Your task to perform on an android device: Search for pizza restaurants on Maps Image 0: 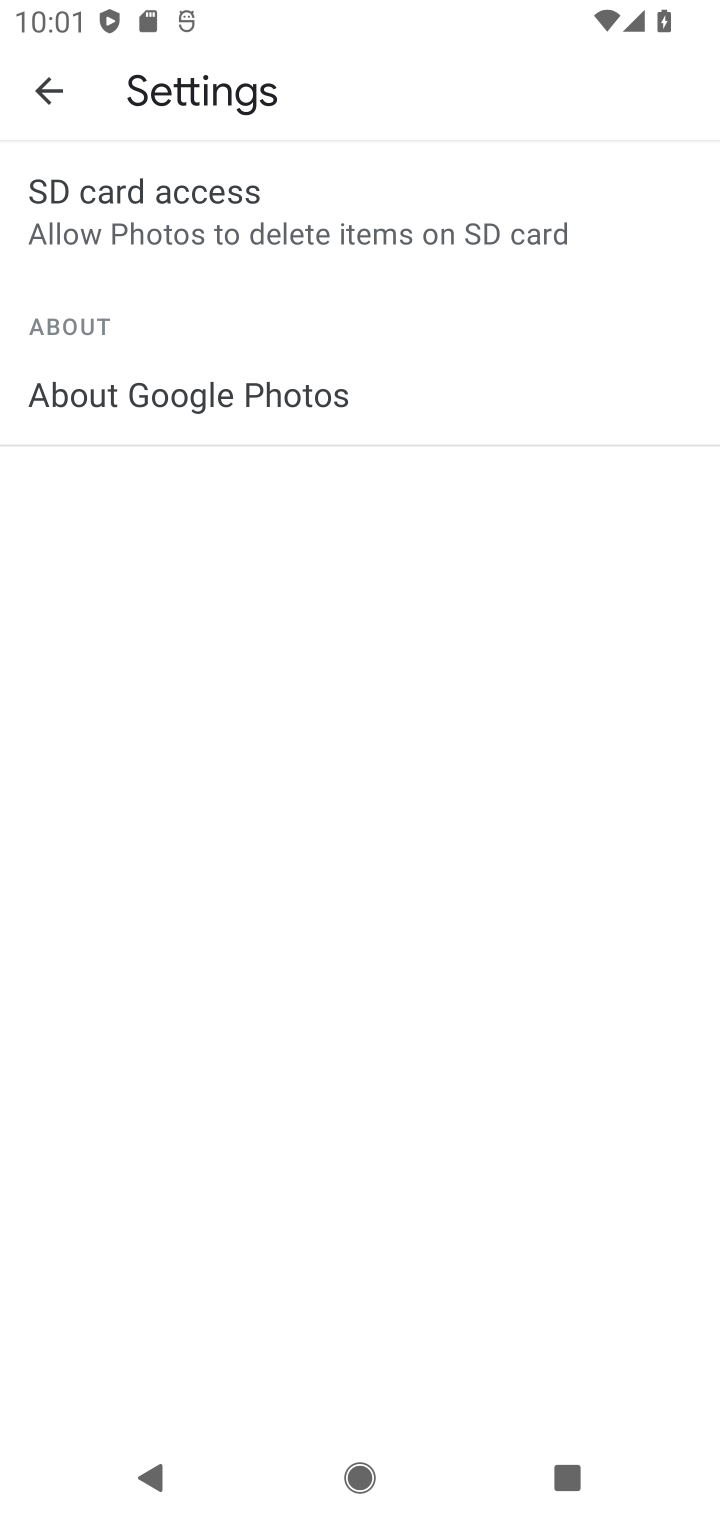
Step 0: press back button
Your task to perform on an android device: Search for pizza restaurants on Maps Image 1: 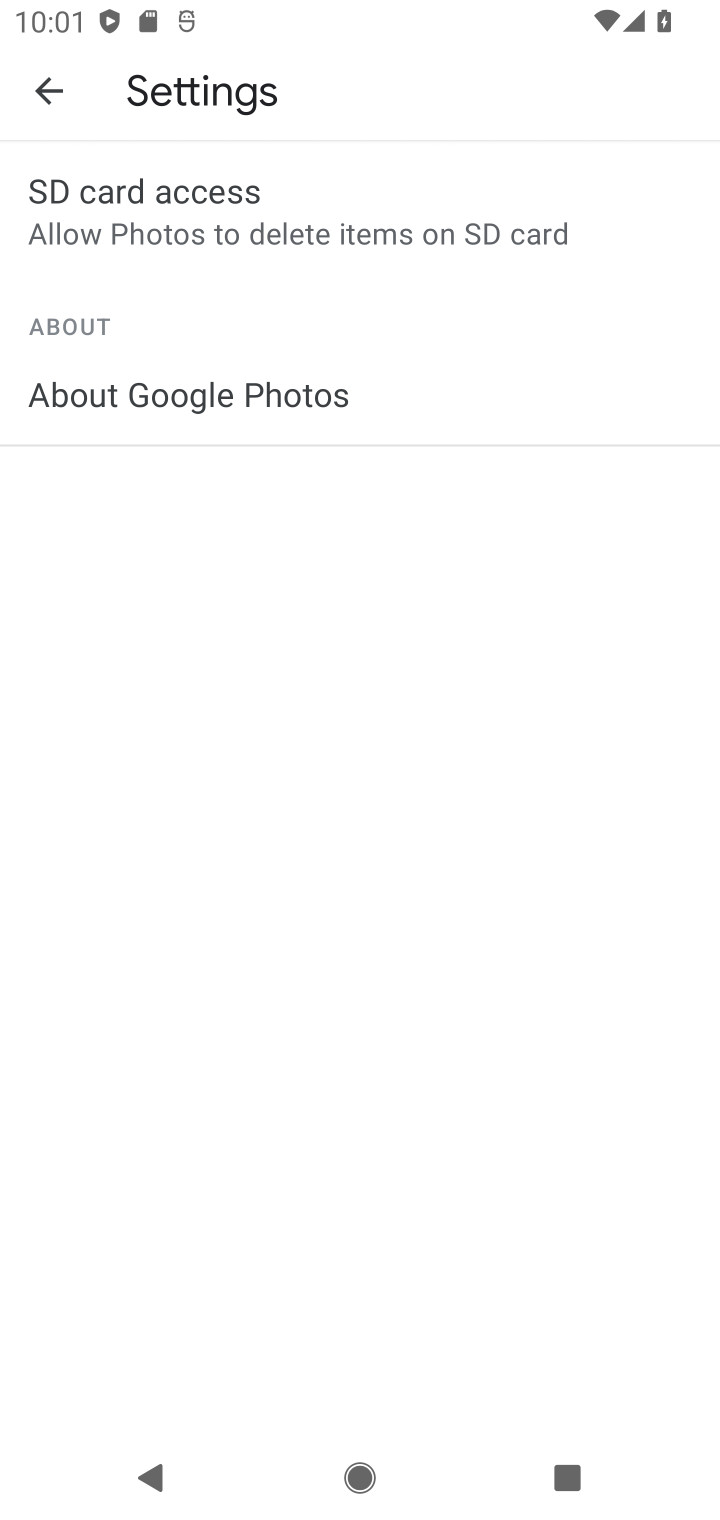
Step 1: press back button
Your task to perform on an android device: Search for pizza restaurants on Maps Image 2: 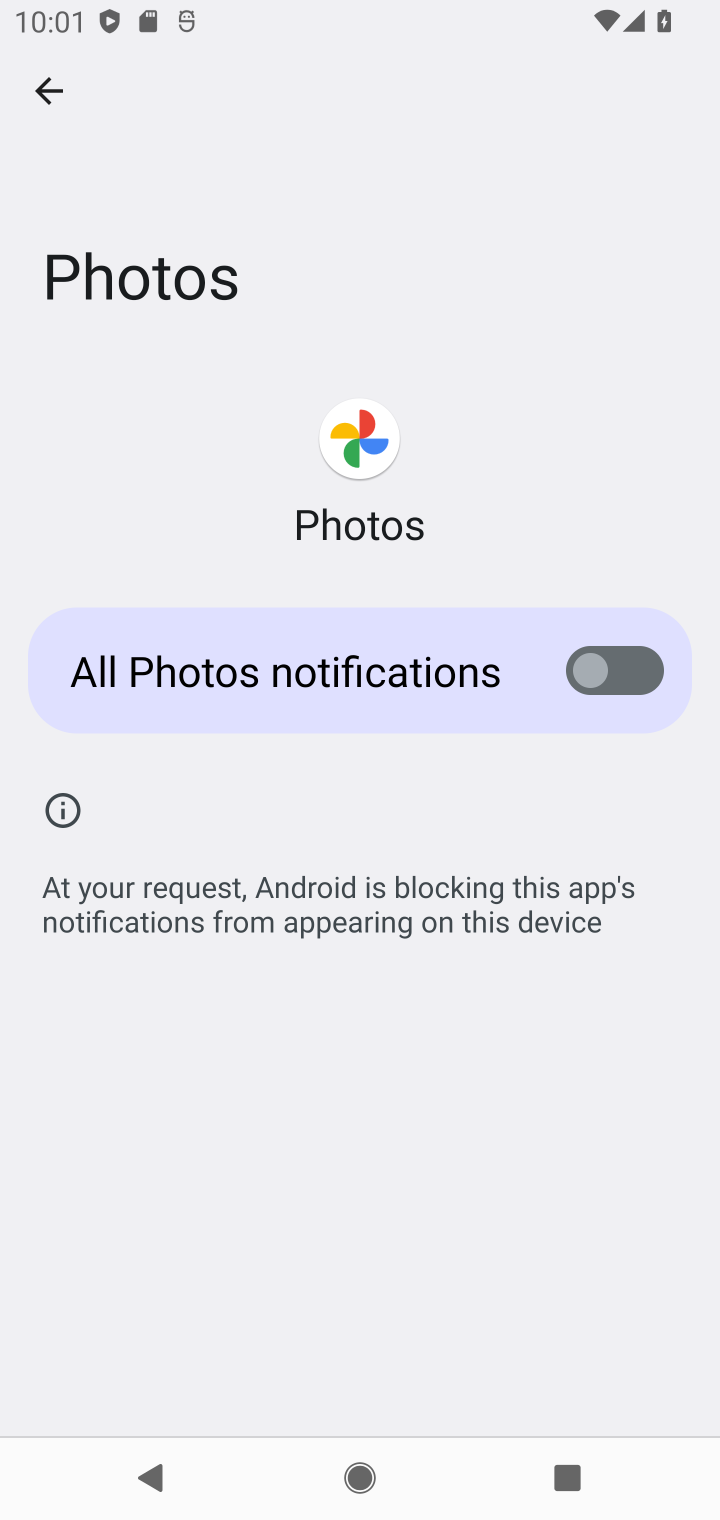
Step 2: press home button
Your task to perform on an android device: Search for pizza restaurants on Maps Image 3: 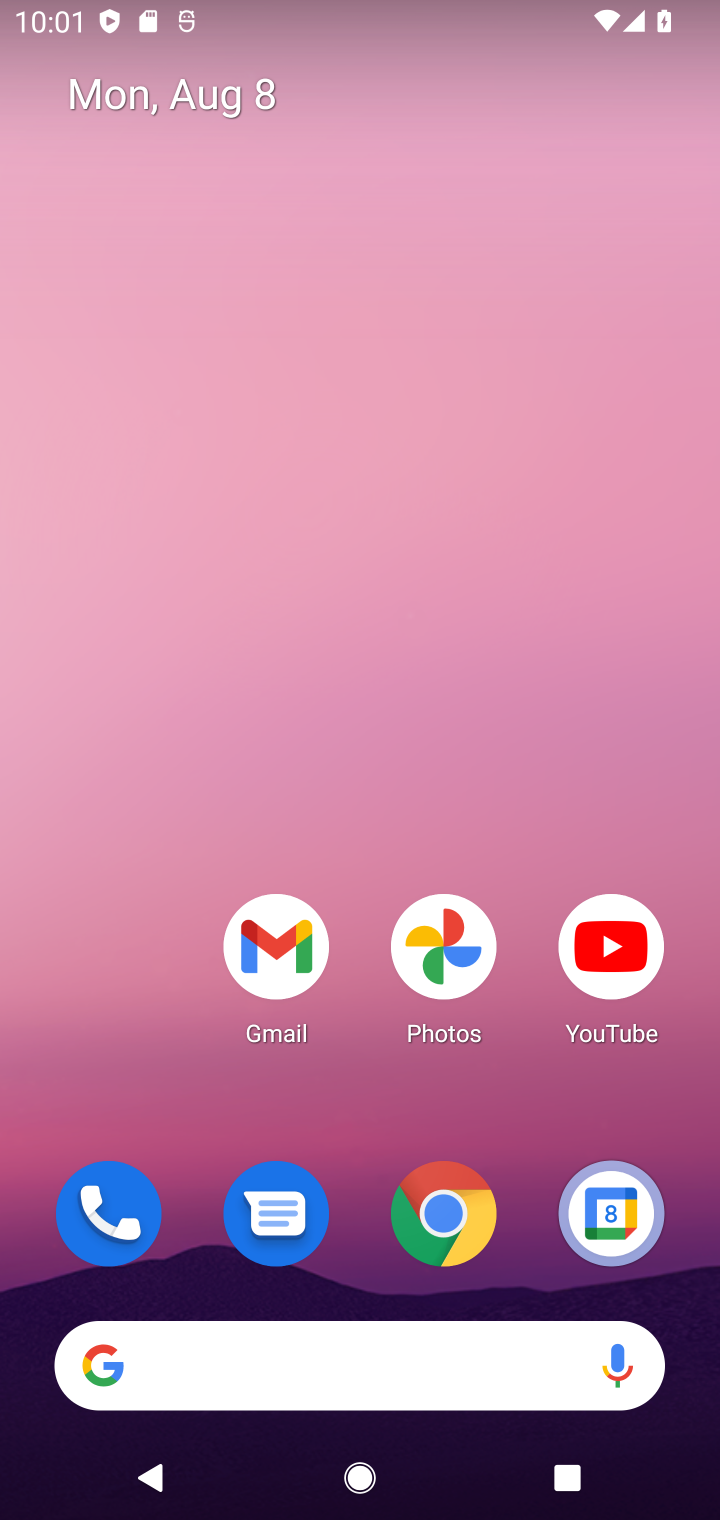
Step 3: drag from (349, 1117) to (292, 376)
Your task to perform on an android device: Search for pizza restaurants on Maps Image 4: 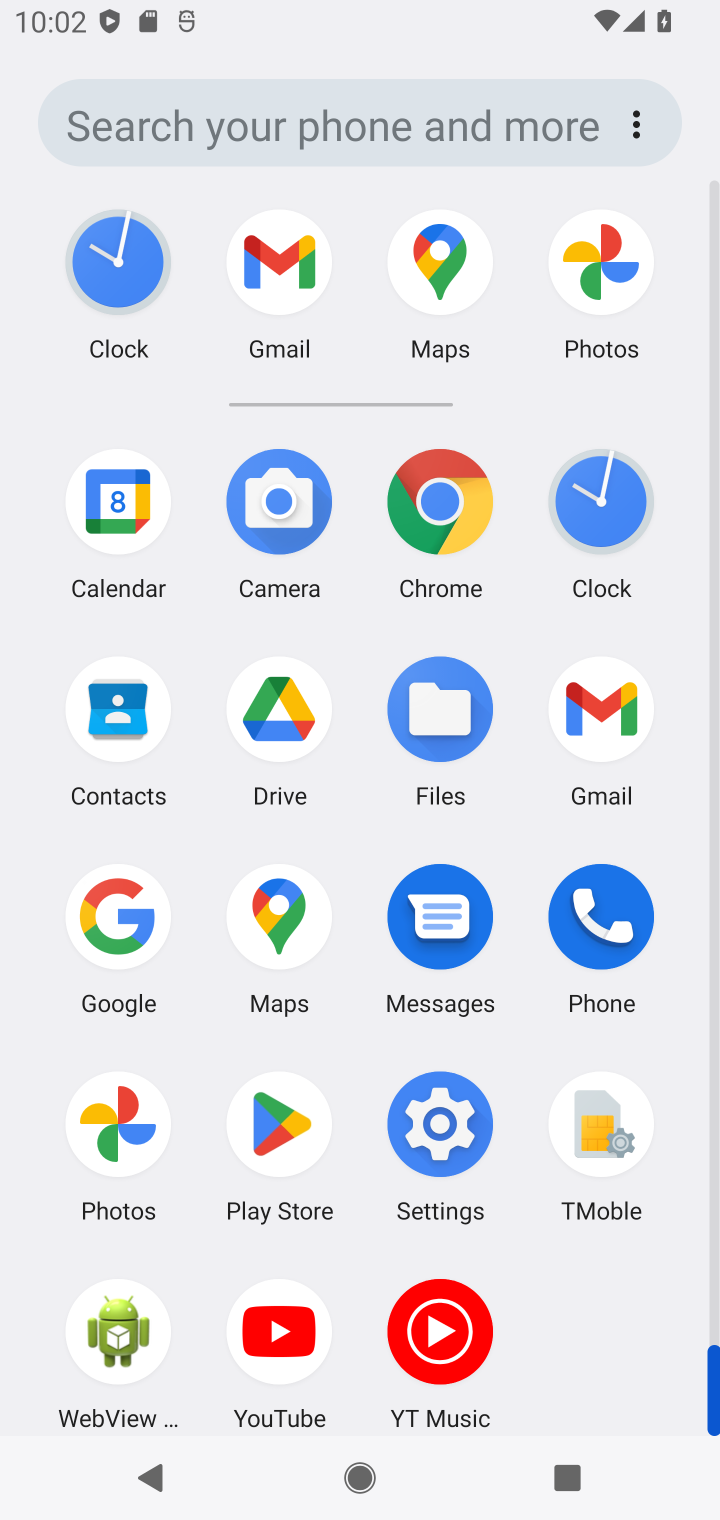
Step 4: click (251, 922)
Your task to perform on an android device: Search for pizza restaurants on Maps Image 5: 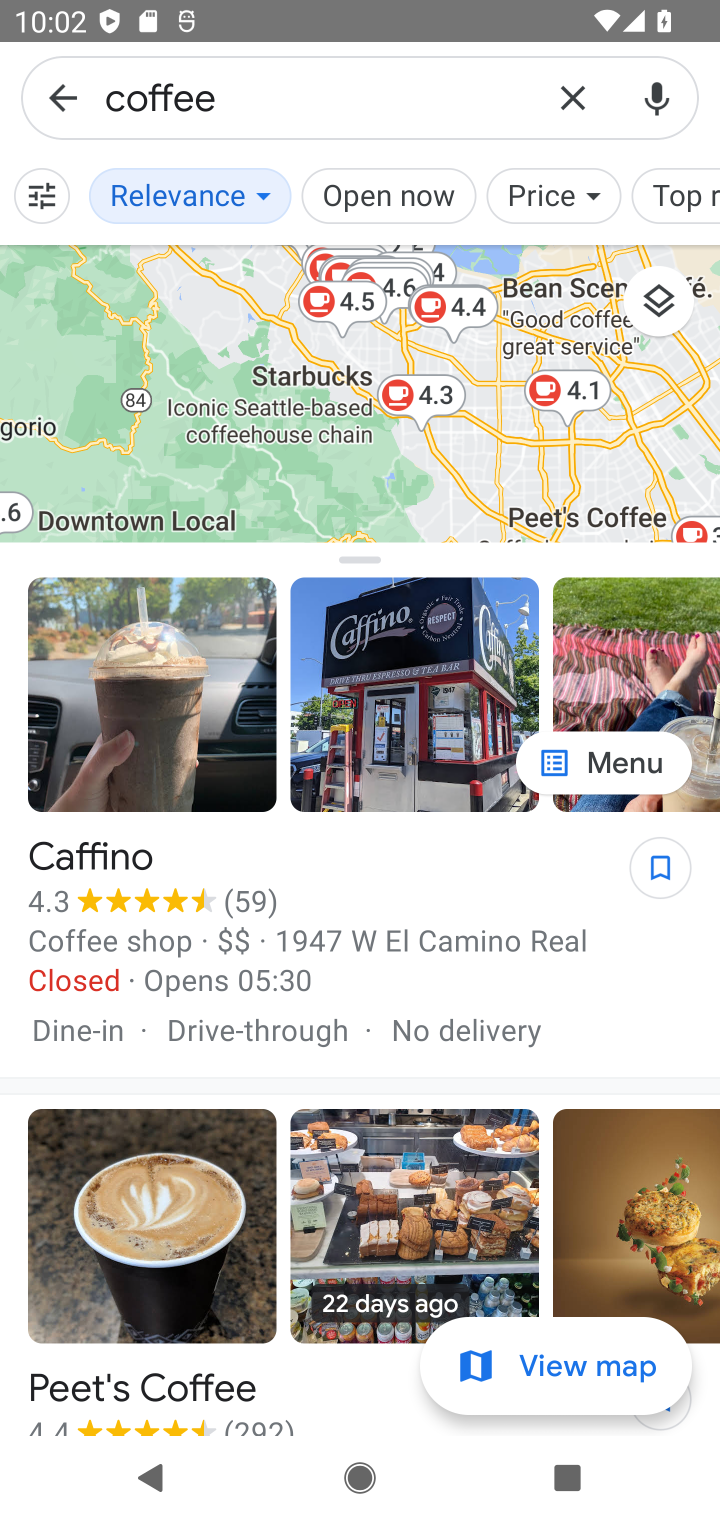
Step 5: click (571, 99)
Your task to perform on an android device: Search for pizza restaurants on Maps Image 6: 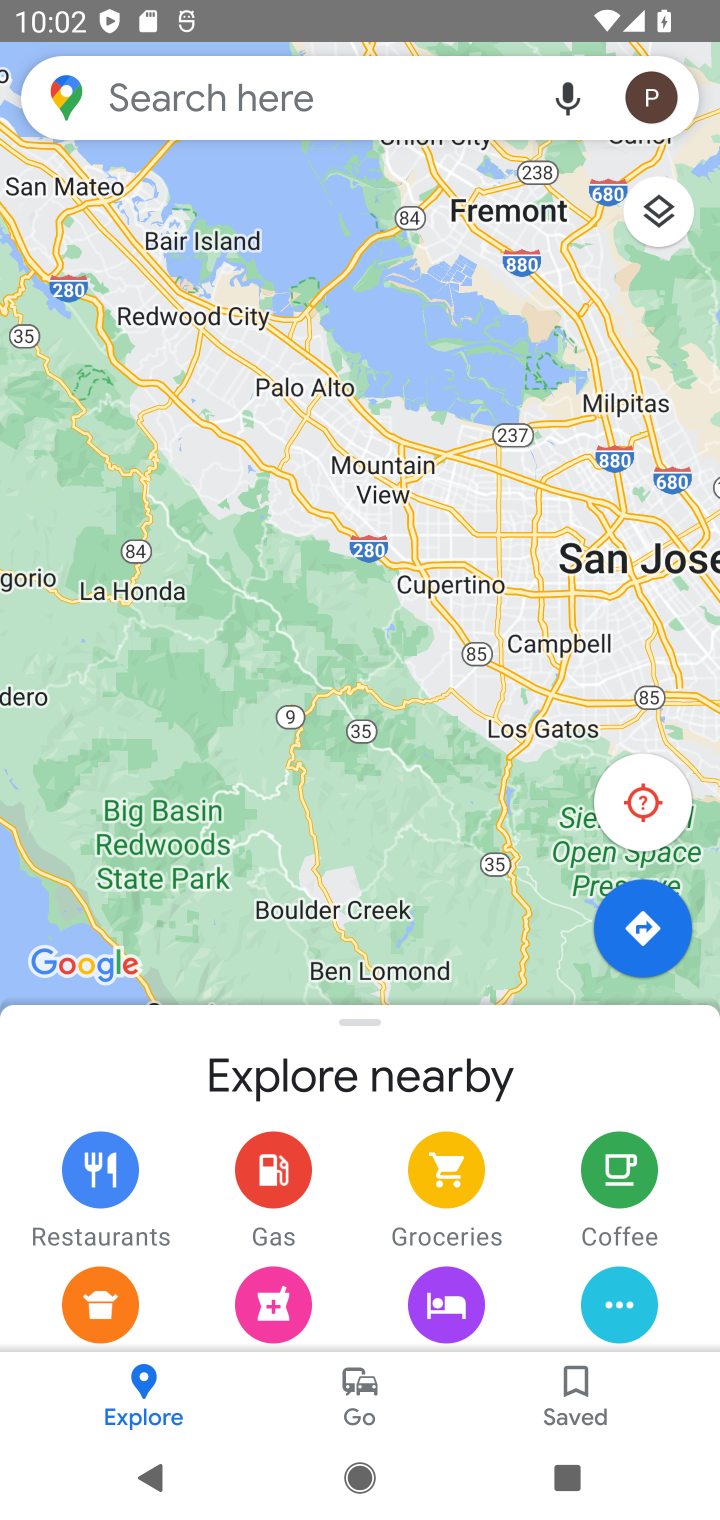
Step 6: click (452, 119)
Your task to perform on an android device: Search for pizza restaurants on Maps Image 7: 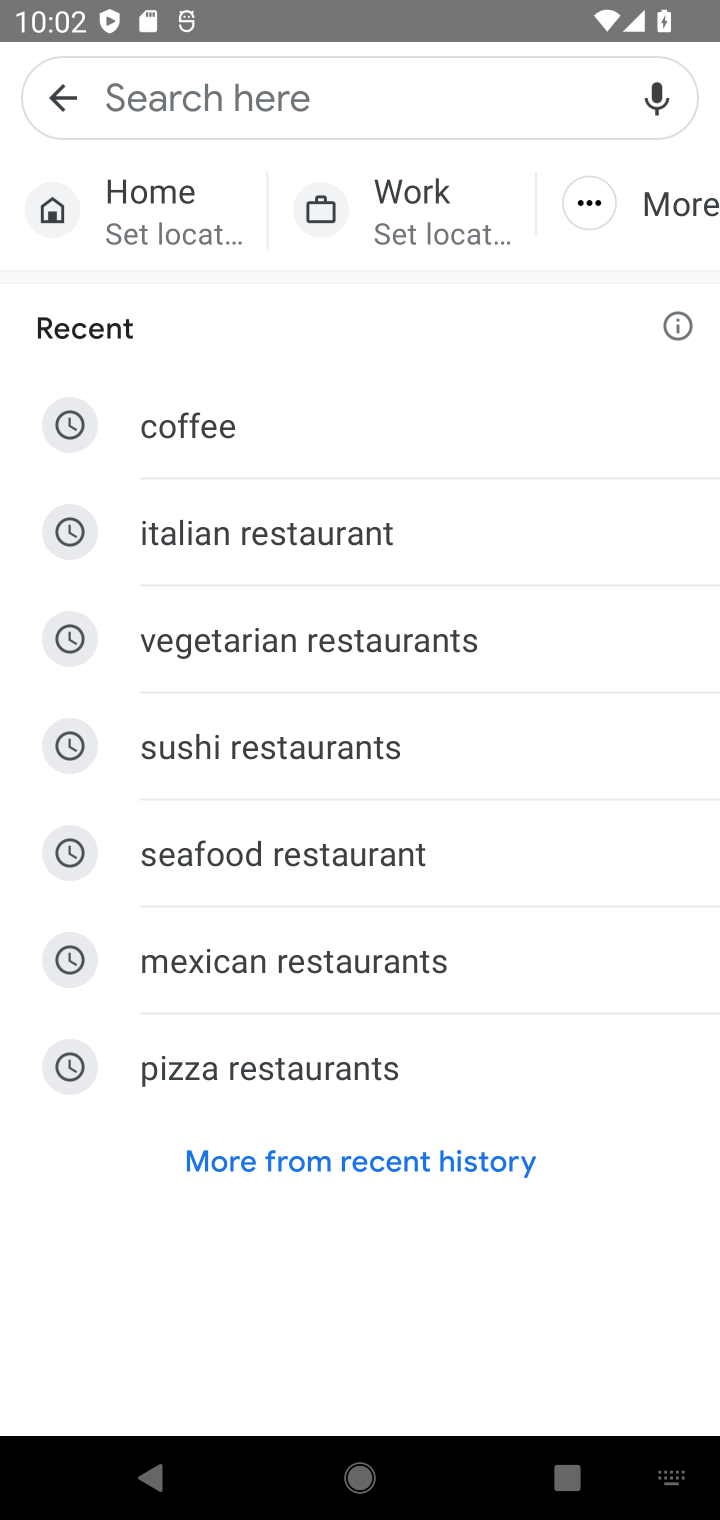
Step 7: click (389, 1055)
Your task to perform on an android device: Search for pizza restaurants on Maps Image 8: 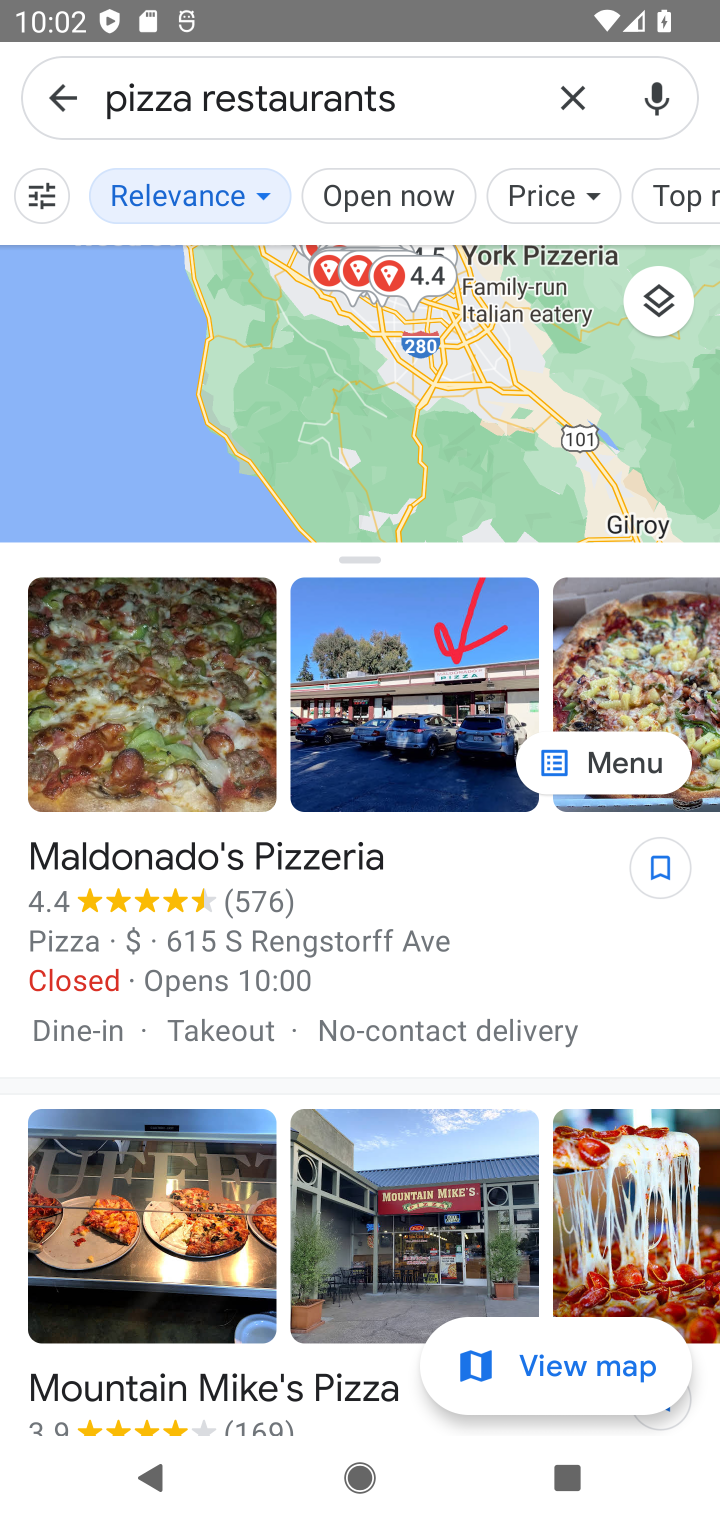
Step 8: task complete